Your task to perform on an android device: Open ESPN.com Image 0: 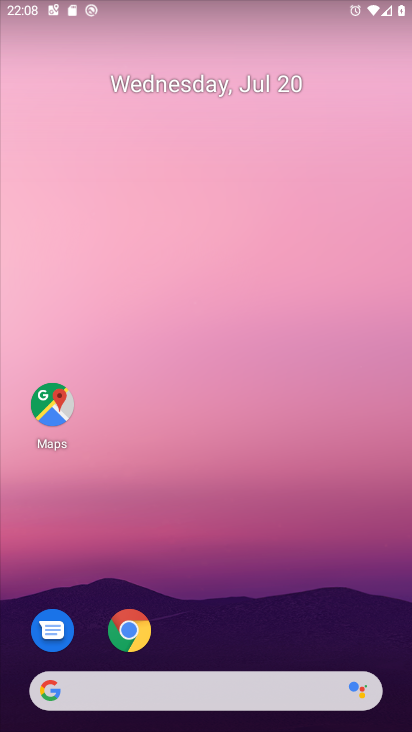
Step 0: click (119, 634)
Your task to perform on an android device: Open ESPN.com Image 1: 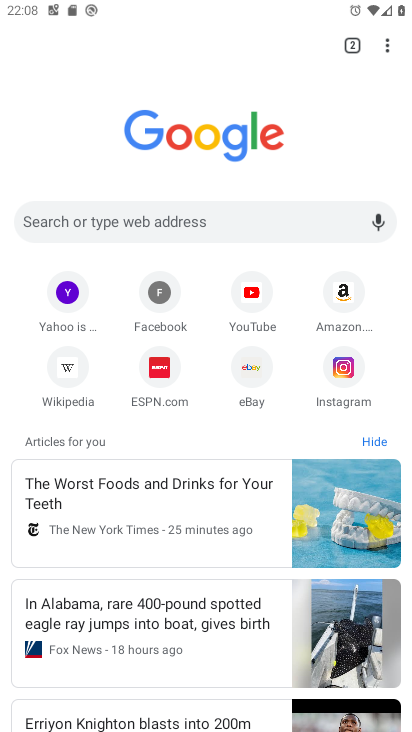
Step 1: click (169, 371)
Your task to perform on an android device: Open ESPN.com Image 2: 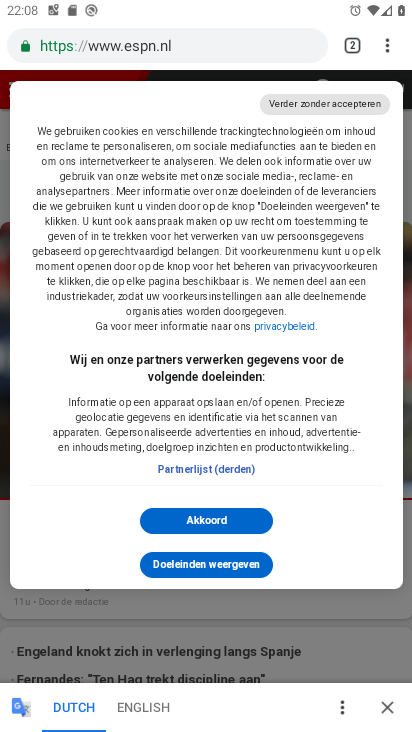
Step 2: task complete